Your task to perform on an android device: Search for Mexican restaurants on Maps Image 0: 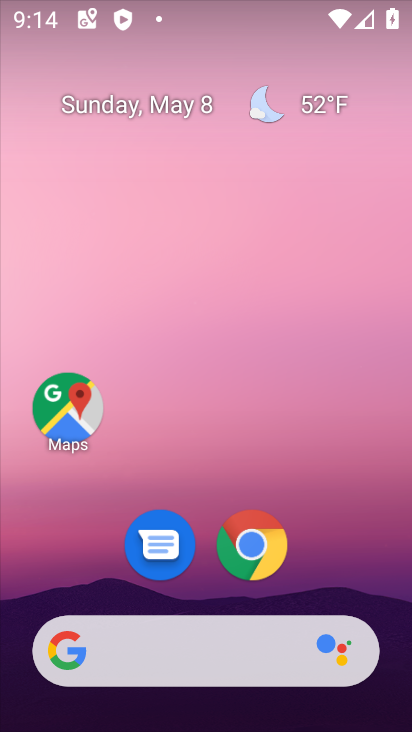
Step 0: click (82, 408)
Your task to perform on an android device: Search for Mexican restaurants on Maps Image 1: 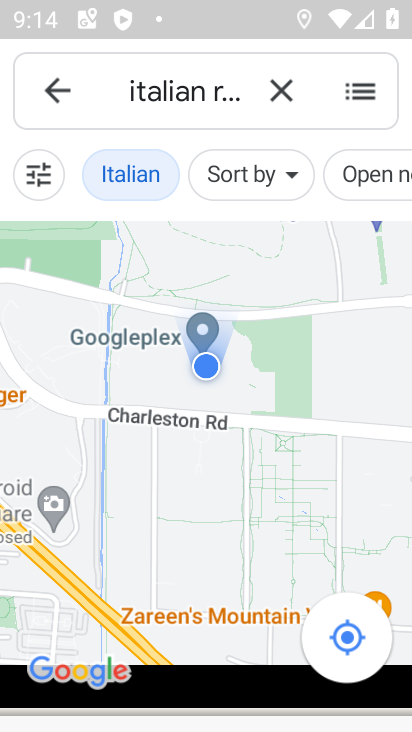
Step 1: click (272, 89)
Your task to perform on an android device: Search for Mexican restaurants on Maps Image 2: 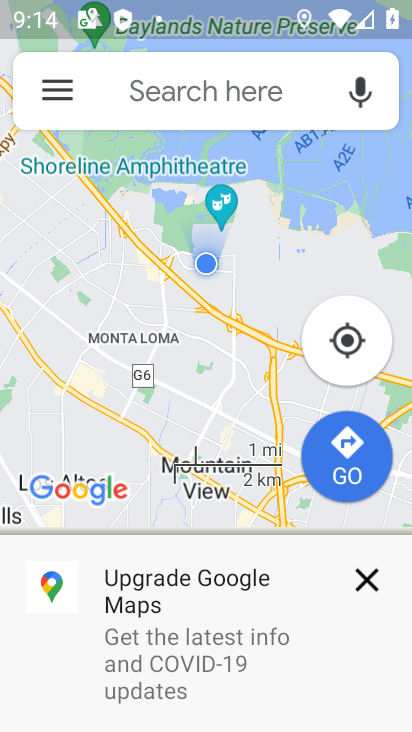
Step 2: click (175, 83)
Your task to perform on an android device: Search for Mexican restaurants on Maps Image 3: 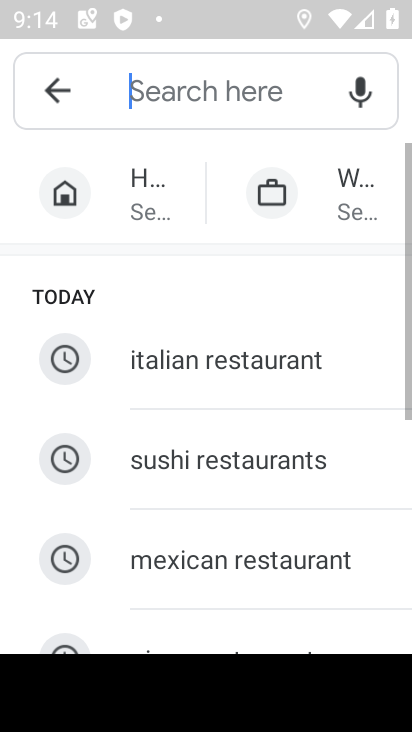
Step 3: click (242, 547)
Your task to perform on an android device: Search for Mexican restaurants on Maps Image 4: 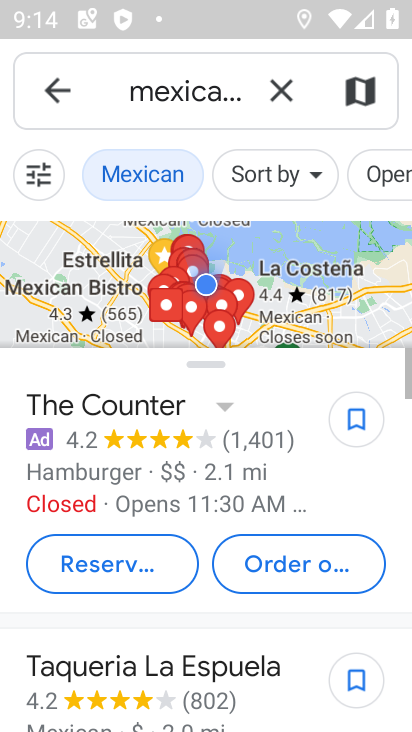
Step 4: task complete